Your task to perform on an android device: move an email to a new category in the gmail app Image 0: 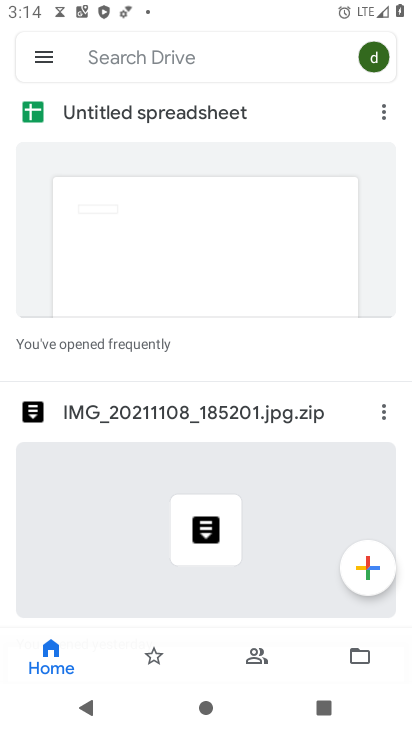
Step 0: press home button
Your task to perform on an android device: move an email to a new category in the gmail app Image 1: 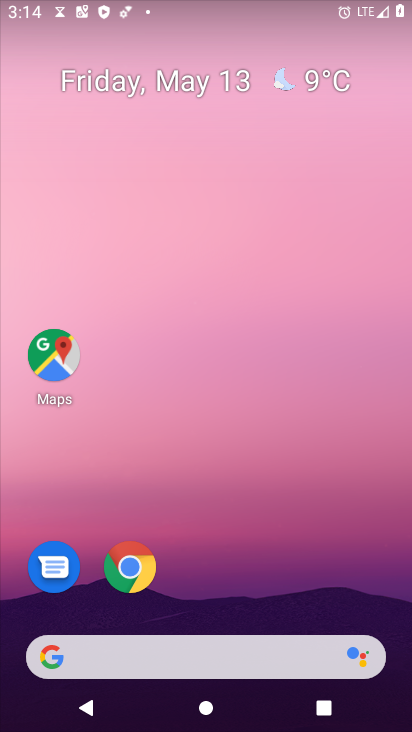
Step 1: drag from (323, 552) to (277, 14)
Your task to perform on an android device: move an email to a new category in the gmail app Image 2: 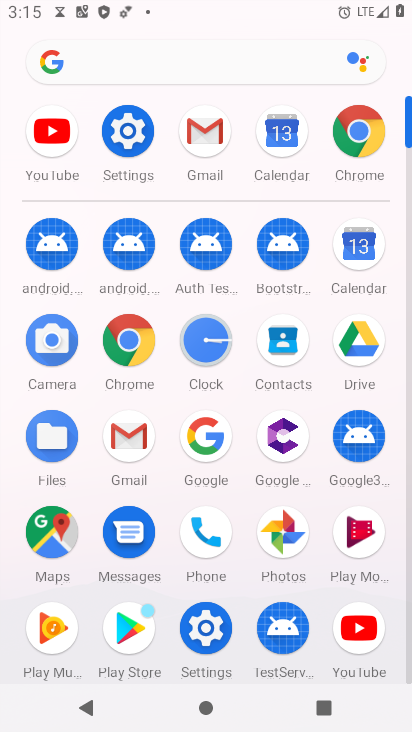
Step 2: click (201, 134)
Your task to perform on an android device: move an email to a new category in the gmail app Image 3: 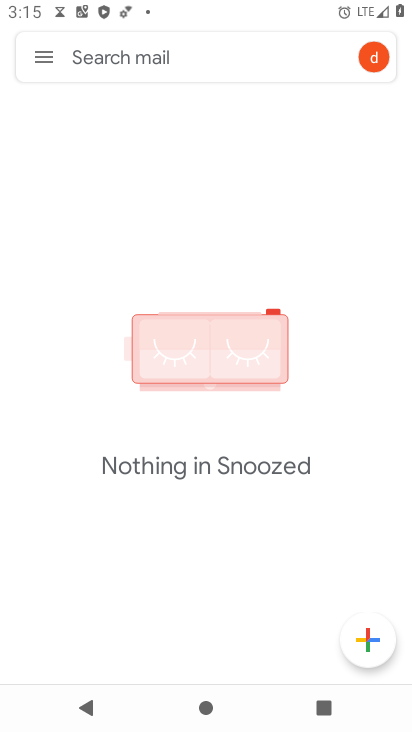
Step 3: click (45, 56)
Your task to perform on an android device: move an email to a new category in the gmail app Image 4: 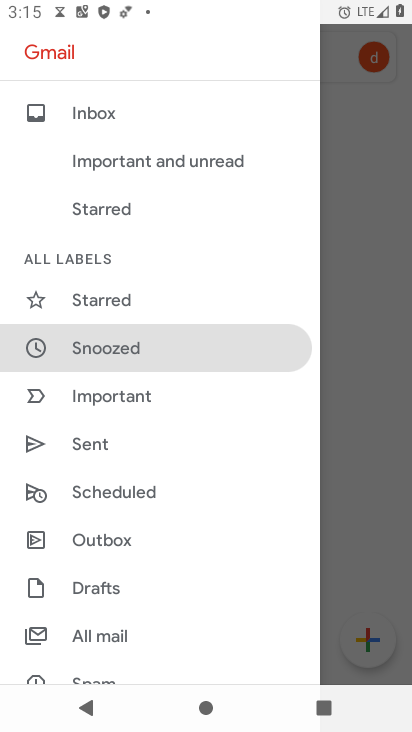
Step 4: click (115, 638)
Your task to perform on an android device: move an email to a new category in the gmail app Image 5: 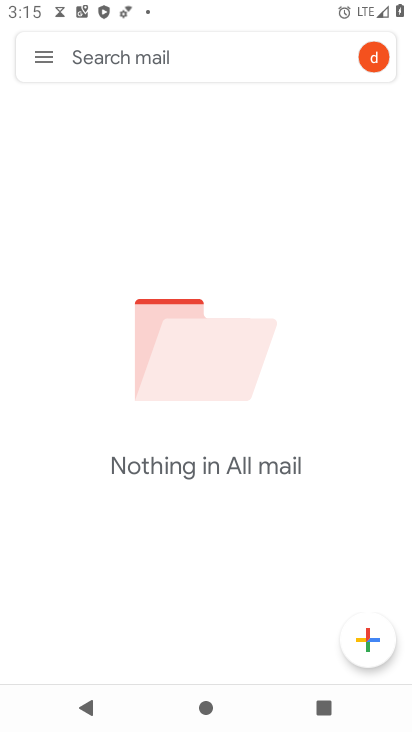
Step 5: task complete